Your task to perform on an android device: Install the Twitter app Image 0: 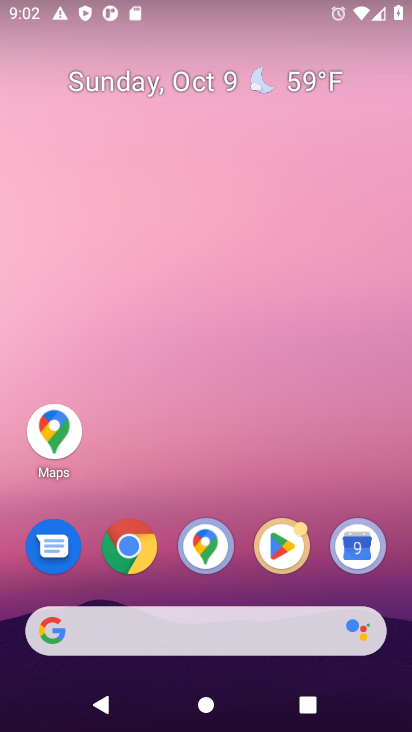
Step 0: click (279, 553)
Your task to perform on an android device: Install the Twitter app Image 1: 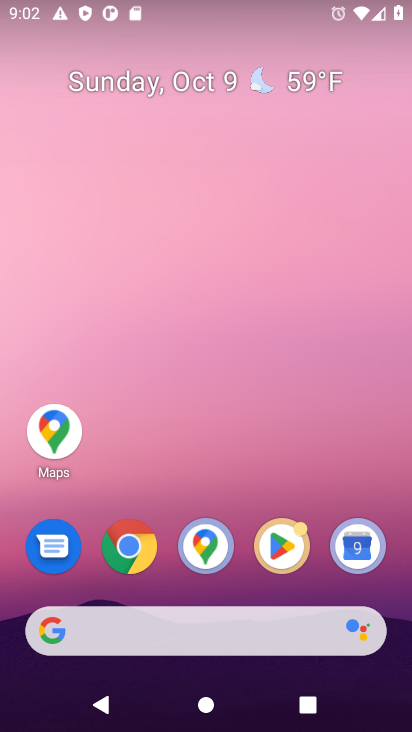
Step 1: click (289, 565)
Your task to perform on an android device: Install the Twitter app Image 2: 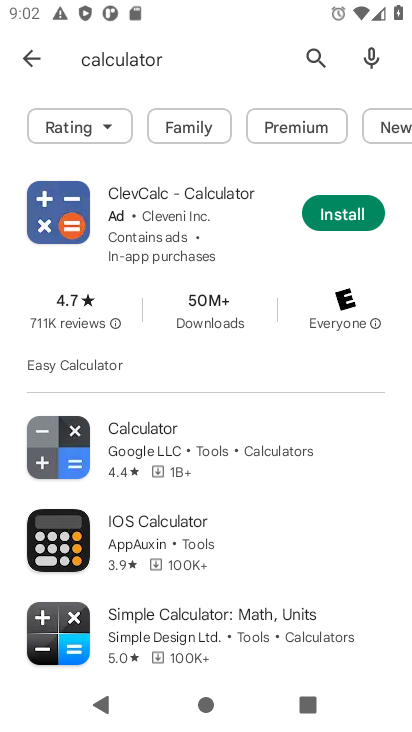
Step 2: click (315, 59)
Your task to perform on an android device: Install the Twitter app Image 3: 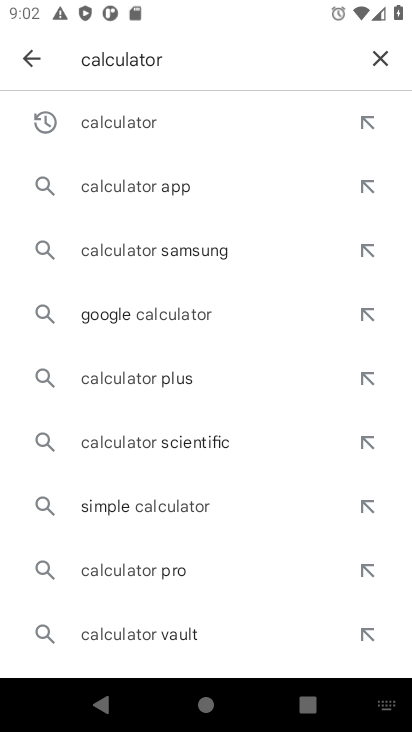
Step 3: click (373, 55)
Your task to perform on an android device: Install the Twitter app Image 4: 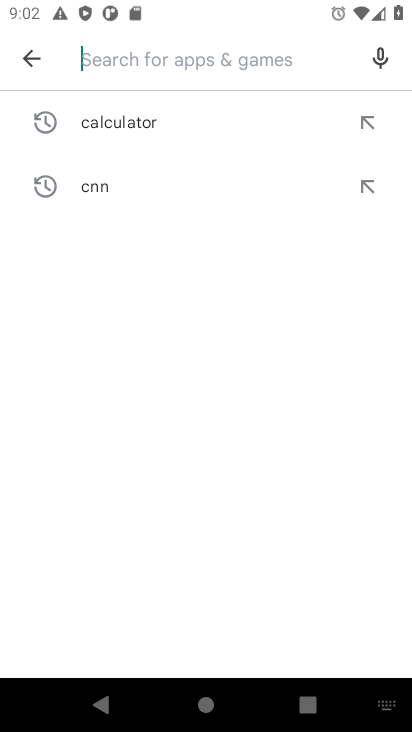
Step 4: type "twitter"
Your task to perform on an android device: Install the Twitter app Image 5: 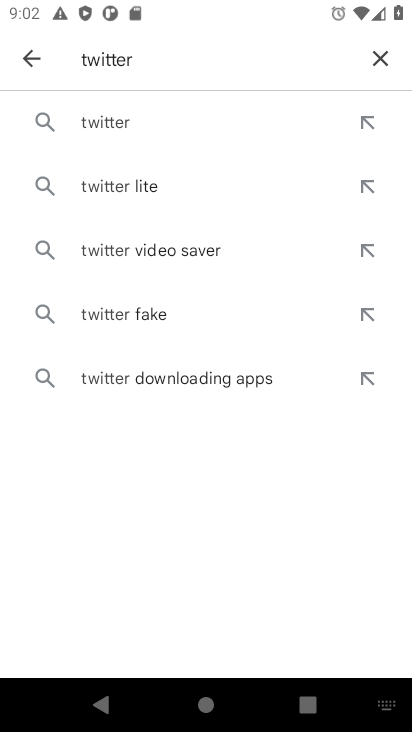
Step 5: press enter
Your task to perform on an android device: Install the Twitter app Image 6: 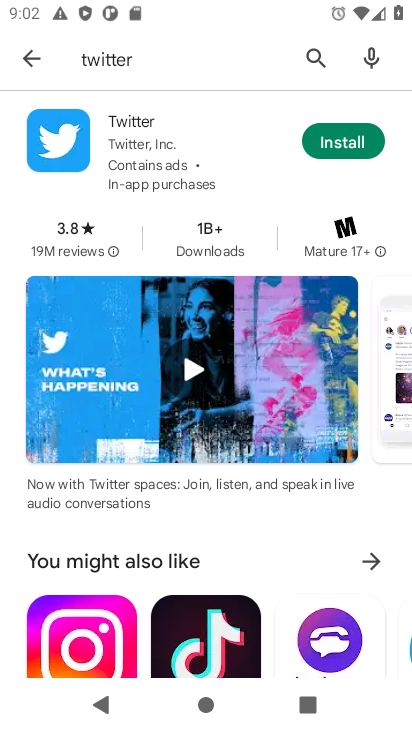
Step 6: click (339, 156)
Your task to perform on an android device: Install the Twitter app Image 7: 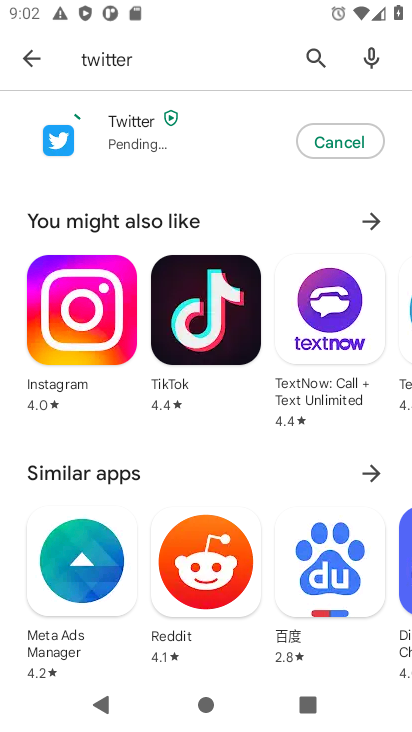
Step 7: drag from (228, 560) to (292, 663)
Your task to perform on an android device: Install the Twitter app Image 8: 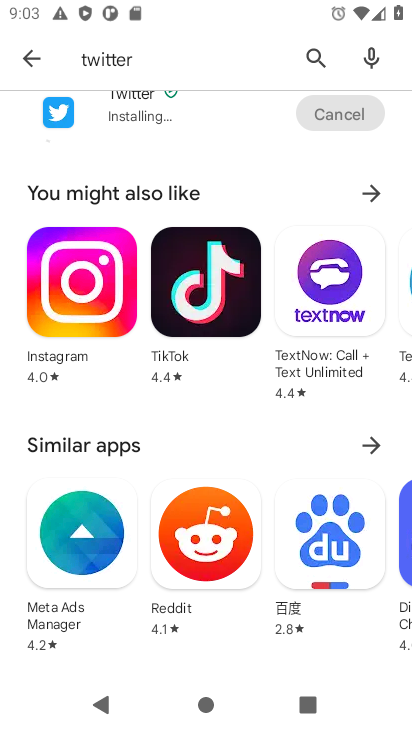
Step 8: drag from (262, 277) to (286, 505)
Your task to perform on an android device: Install the Twitter app Image 9: 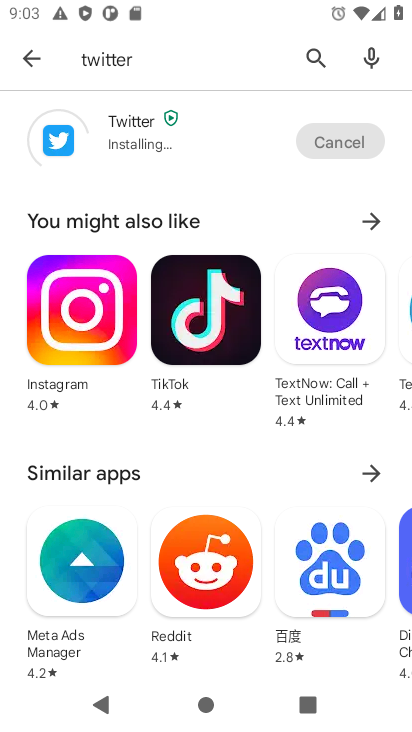
Step 9: drag from (206, 487) to (211, 523)
Your task to perform on an android device: Install the Twitter app Image 10: 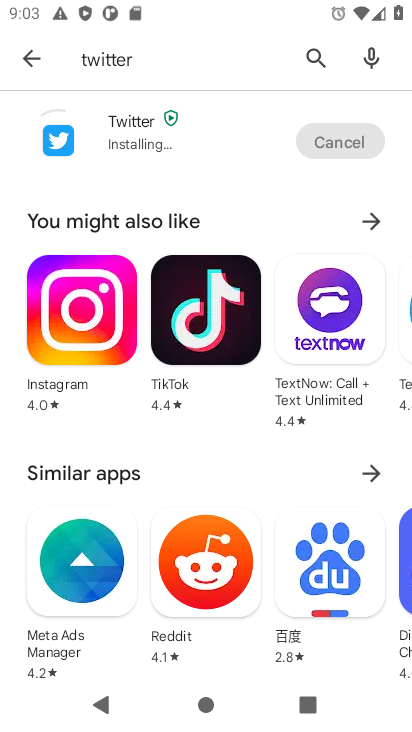
Step 10: drag from (231, 442) to (257, 566)
Your task to perform on an android device: Install the Twitter app Image 11: 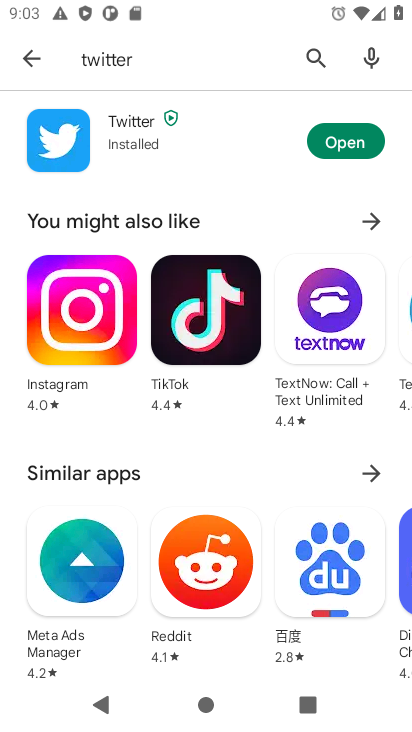
Step 11: click (331, 132)
Your task to perform on an android device: Install the Twitter app Image 12: 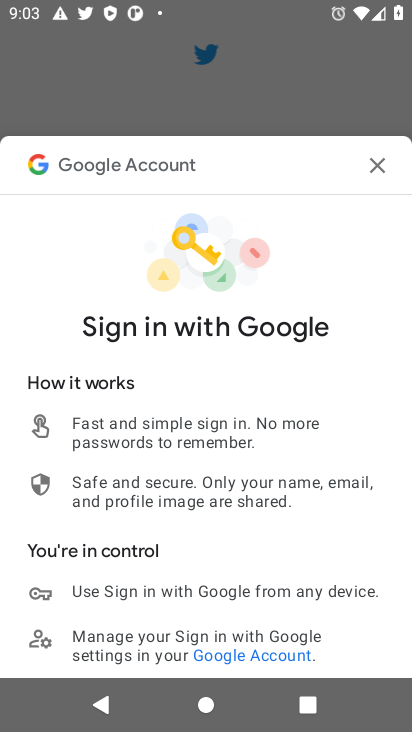
Step 12: task complete